Your task to perform on an android device: Show me recent news Image 0: 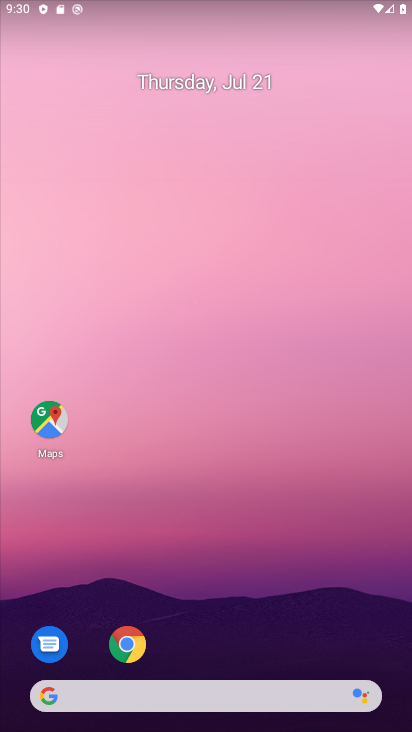
Step 0: click (199, 701)
Your task to perform on an android device: Show me recent news Image 1: 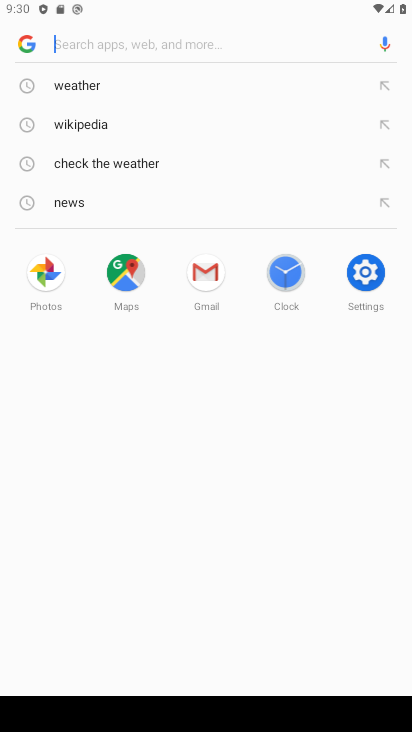
Step 1: click (135, 208)
Your task to perform on an android device: Show me recent news Image 2: 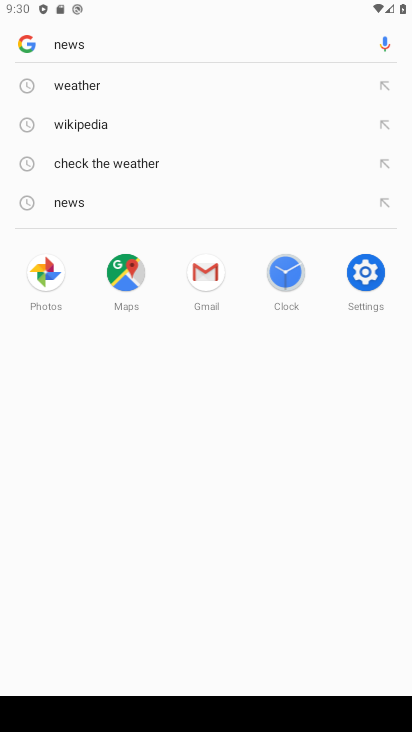
Step 2: task complete